Your task to perform on an android device: turn on sleep mode Image 0: 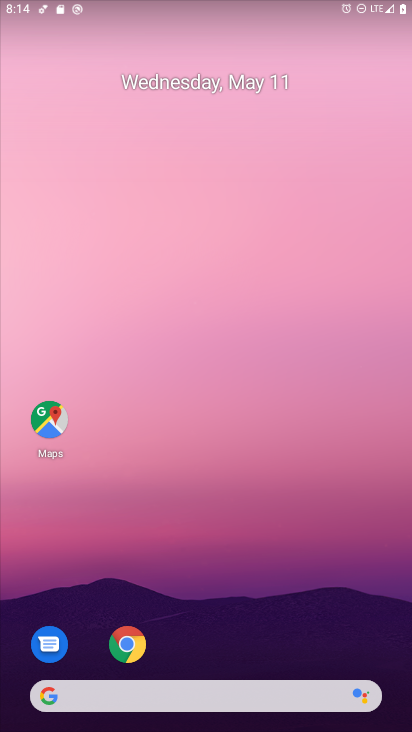
Step 0: drag from (246, 605) to (134, 247)
Your task to perform on an android device: turn on sleep mode Image 1: 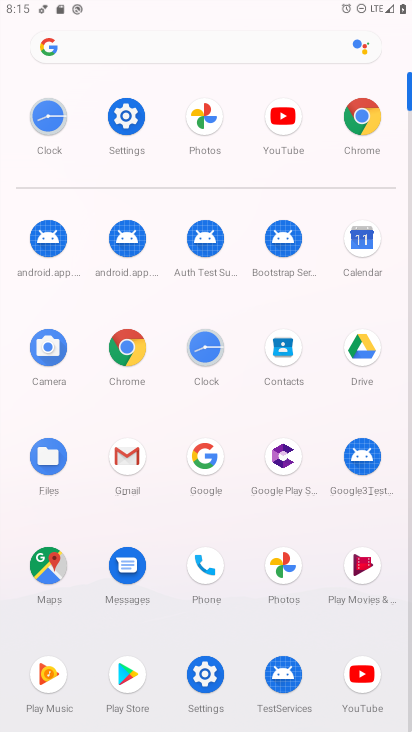
Step 1: click (124, 111)
Your task to perform on an android device: turn on sleep mode Image 2: 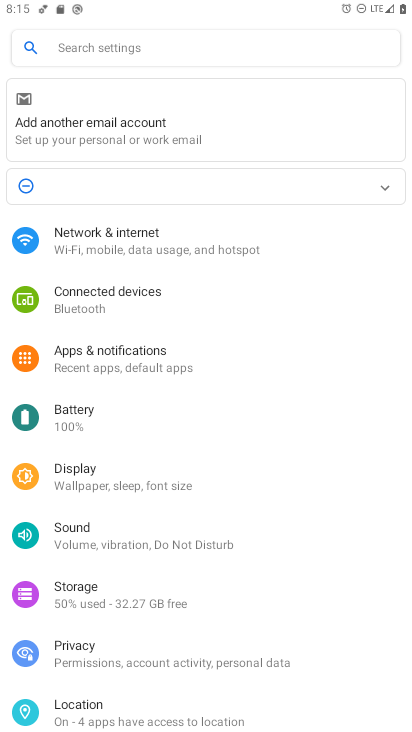
Step 2: click (80, 467)
Your task to perform on an android device: turn on sleep mode Image 3: 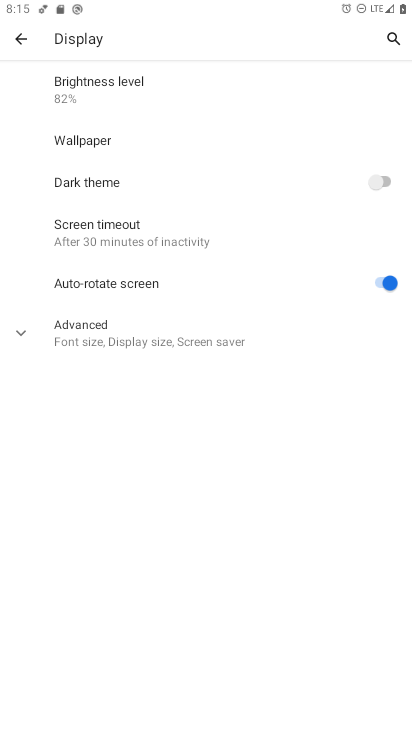
Step 3: task complete